Your task to perform on an android device: manage bookmarks in the chrome app Image 0: 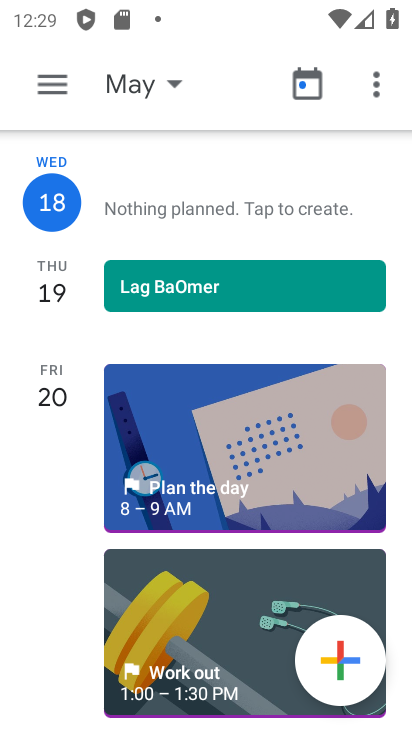
Step 0: press home button
Your task to perform on an android device: manage bookmarks in the chrome app Image 1: 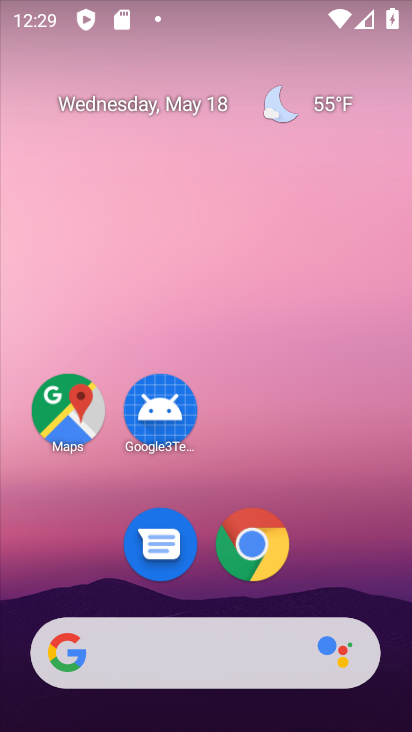
Step 1: click (265, 538)
Your task to perform on an android device: manage bookmarks in the chrome app Image 2: 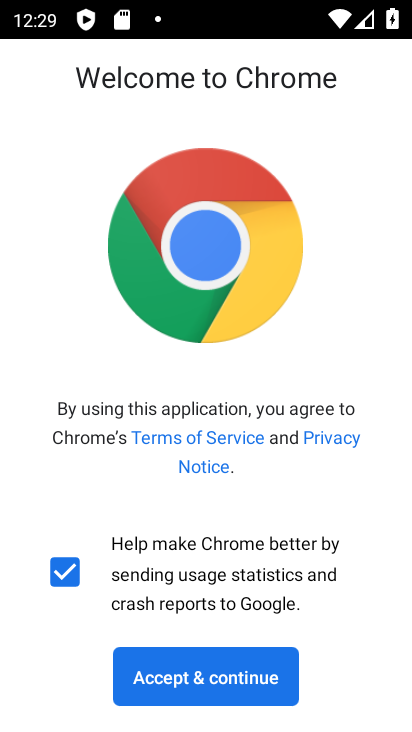
Step 2: click (181, 683)
Your task to perform on an android device: manage bookmarks in the chrome app Image 3: 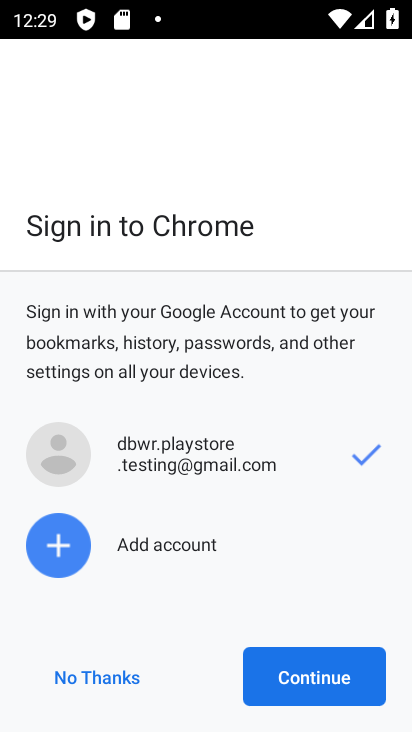
Step 3: click (294, 675)
Your task to perform on an android device: manage bookmarks in the chrome app Image 4: 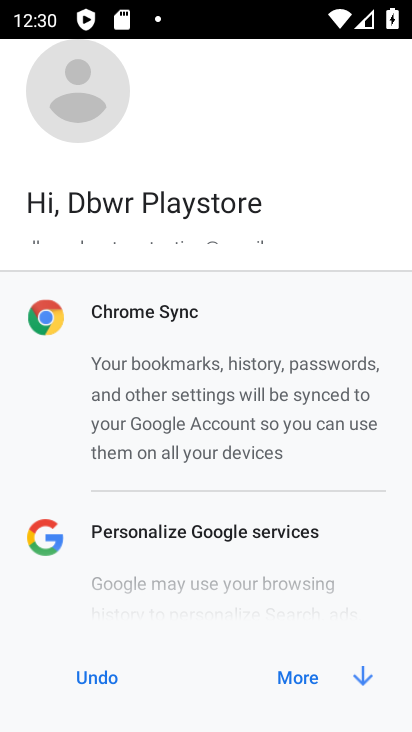
Step 4: click (293, 674)
Your task to perform on an android device: manage bookmarks in the chrome app Image 5: 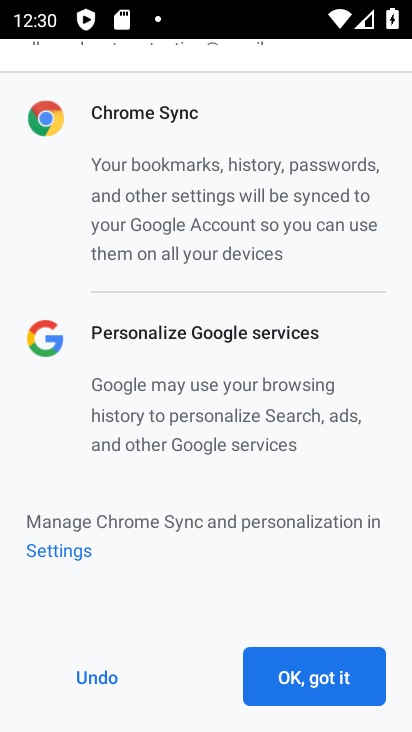
Step 5: click (294, 667)
Your task to perform on an android device: manage bookmarks in the chrome app Image 6: 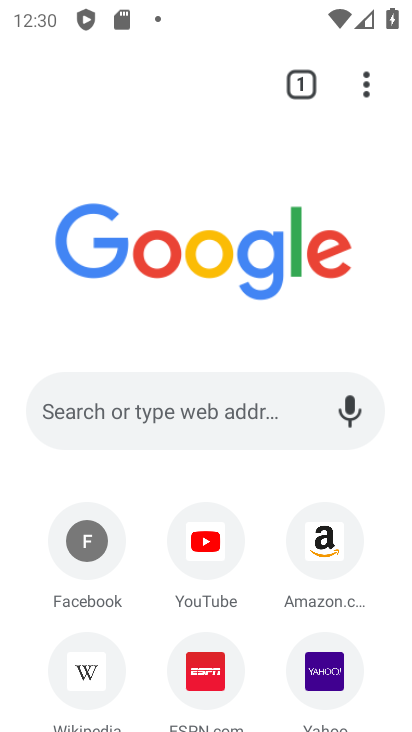
Step 6: click (360, 87)
Your task to perform on an android device: manage bookmarks in the chrome app Image 7: 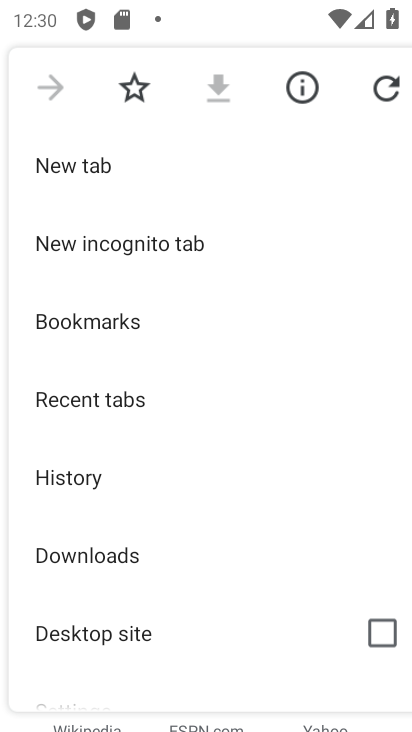
Step 7: click (106, 333)
Your task to perform on an android device: manage bookmarks in the chrome app Image 8: 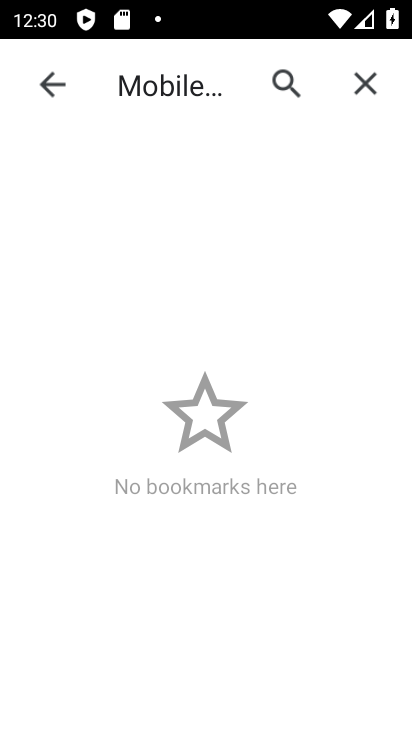
Step 8: task complete